Your task to perform on an android device: turn notification dots on Image 0: 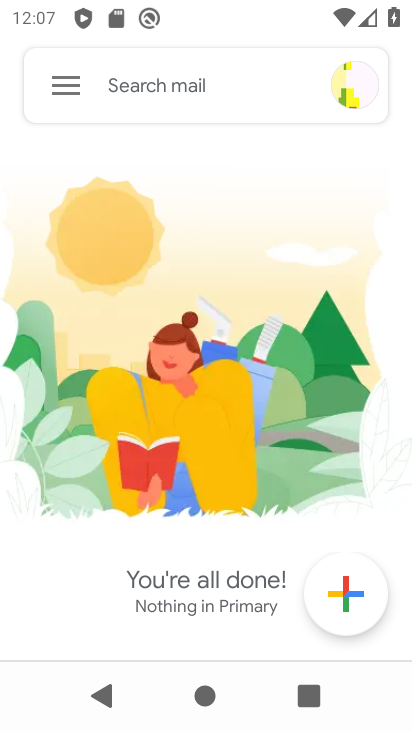
Step 0: press home button
Your task to perform on an android device: turn notification dots on Image 1: 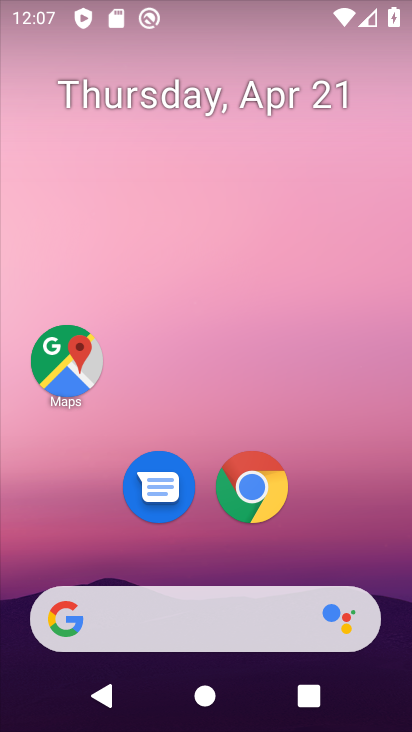
Step 1: drag from (330, 544) to (238, 159)
Your task to perform on an android device: turn notification dots on Image 2: 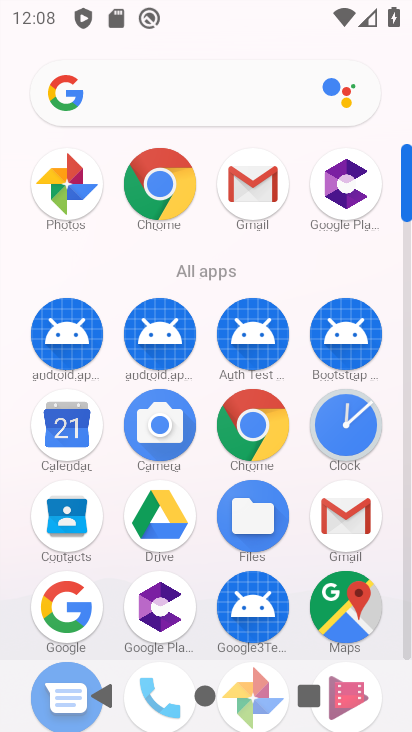
Step 2: click (402, 614)
Your task to perform on an android device: turn notification dots on Image 3: 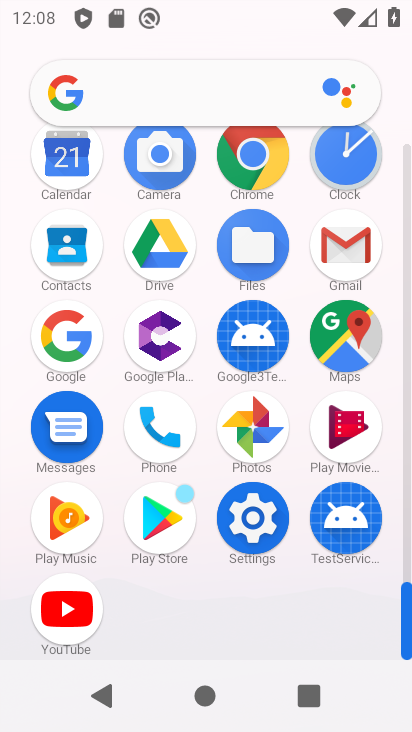
Step 3: click (402, 614)
Your task to perform on an android device: turn notification dots on Image 4: 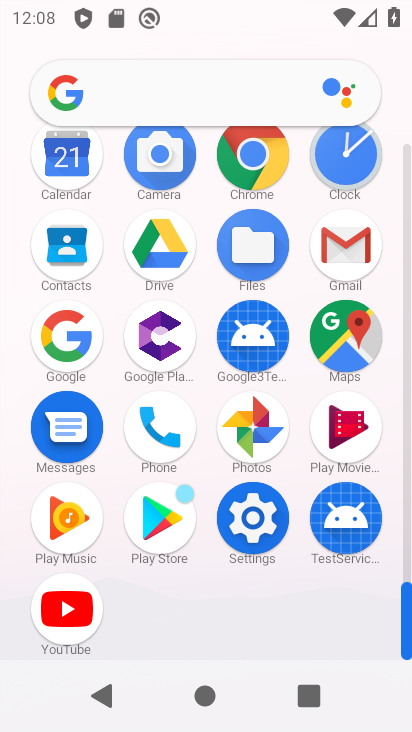
Step 4: click (273, 489)
Your task to perform on an android device: turn notification dots on Image 5: 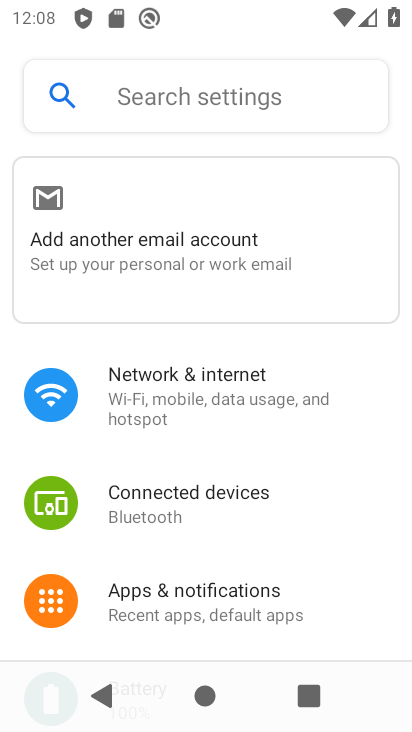
Step 5: click (238, 612)
Your task to perform on an android device: turn notification dots on Image 6: 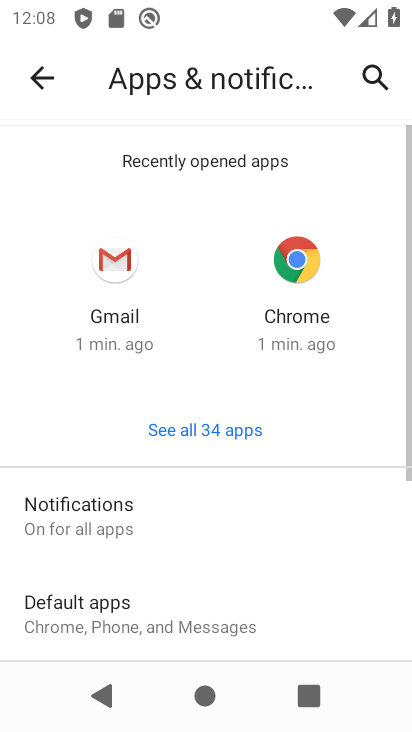
Step 6: click (91, 525)
Your task to perform on an android device: turn notification dots on Image 7: 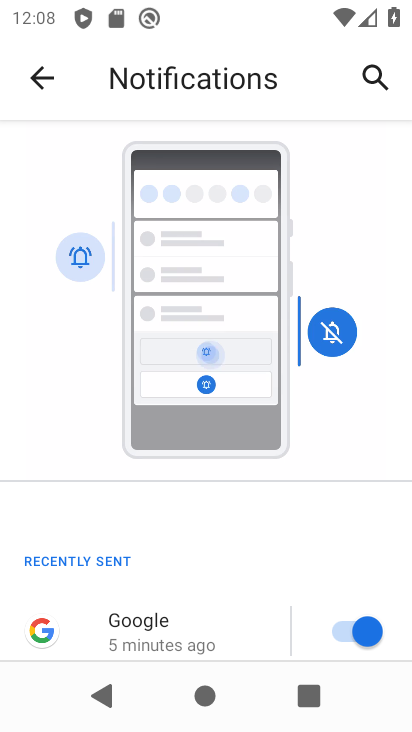
Step 7: drag from (267, 587) to (236, 275)
Your task to perform on an android device: turn notification dots on Image 8: 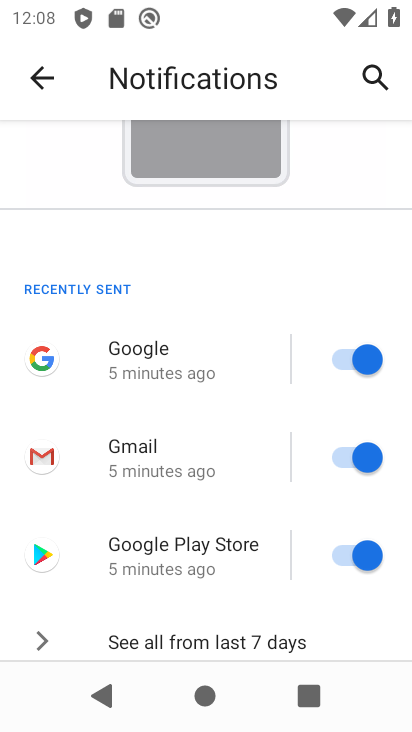
Step 8: drag from (269, 606) to (260, 295)
Your task to perform on an android device: turn notification dots on Image 9: 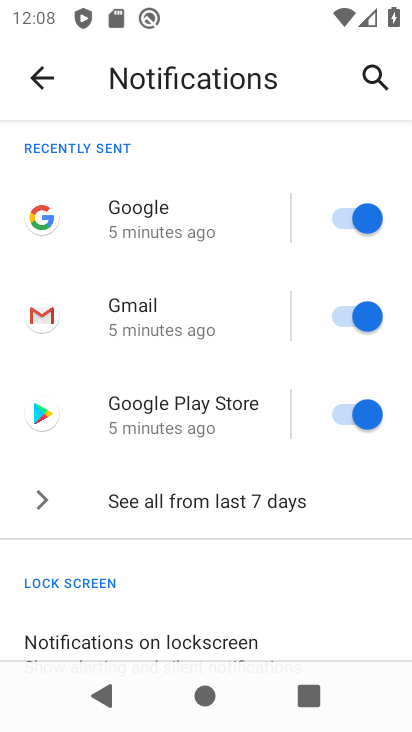
Step 9: drag from (281, 584) to (290, 233)
Your task to perform on an android device: turn notification dots on Image 10: 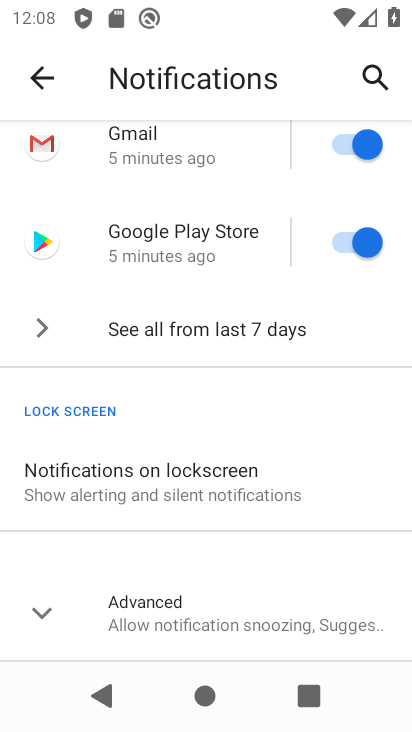
Step 10: click (261, 601)
Your task to perform on an android device: turn notification dots on Image 11: 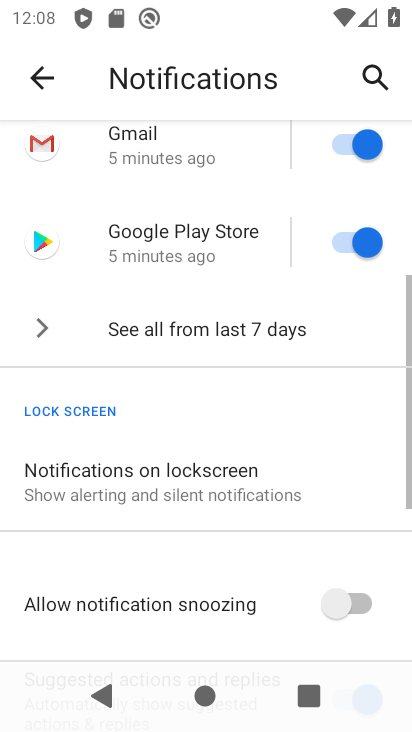
Step 11: task complete